Your task to perform on an android device: add a label to a message in the gmail app Image 0: 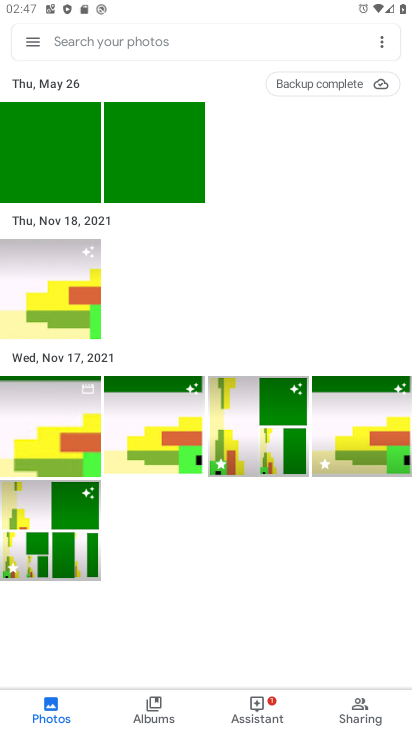
Step 0: press home button
Your task to perform on an android device: add a label to a message in the gmail app Image 1: 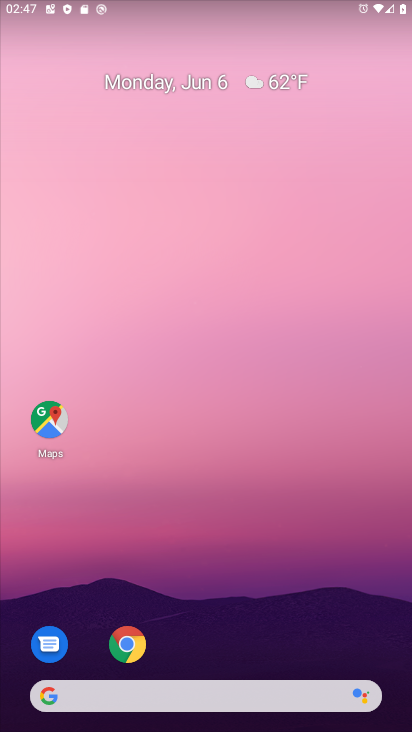
Step 1: drag from (132, 623) to (99, 85)
Your task to perform on an android device: add a label to a message in the gmail app Image 2: 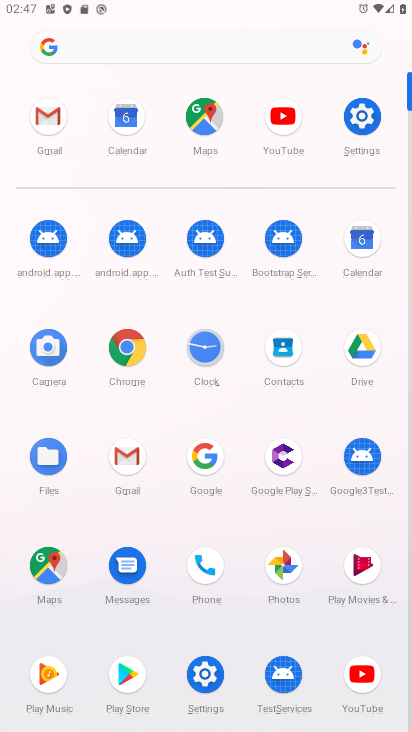
Step 2: click (131, 468)
Your task to perform on an android device: add a label to a message in the gmail app Image 3: 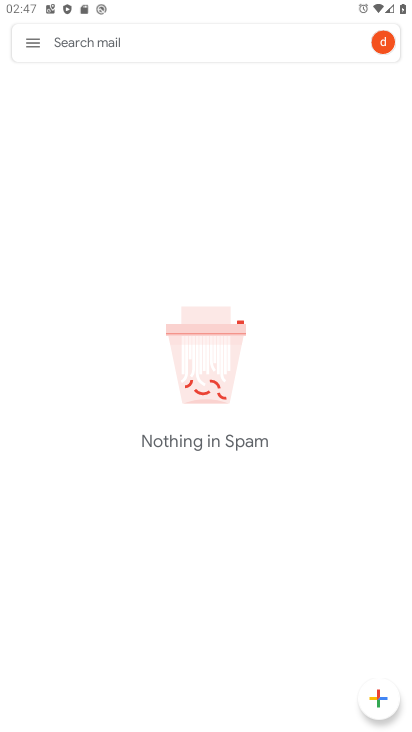
Step 3: click (30, 47)
Your task to perform on an android device: add a label to a message in the gmail app Image 4: 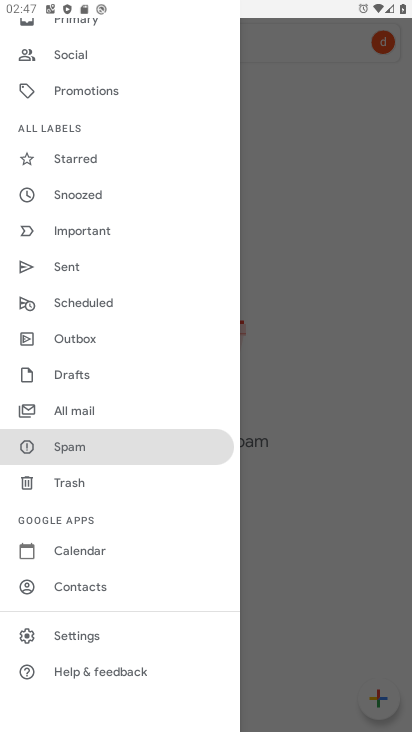
Step 4: click (76, 412)
Your task to perform on an android device: add a label to a message in the gmail app Image 5: 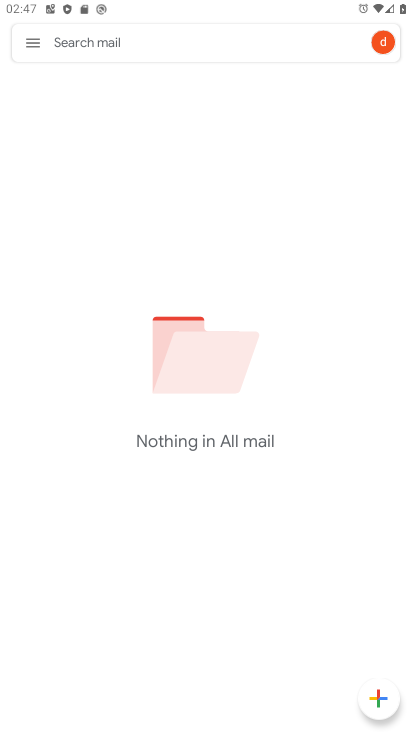
Step 5: click (28, 47)
Your task to perform on an android device: add a label to a message in the gmail app Image 6: 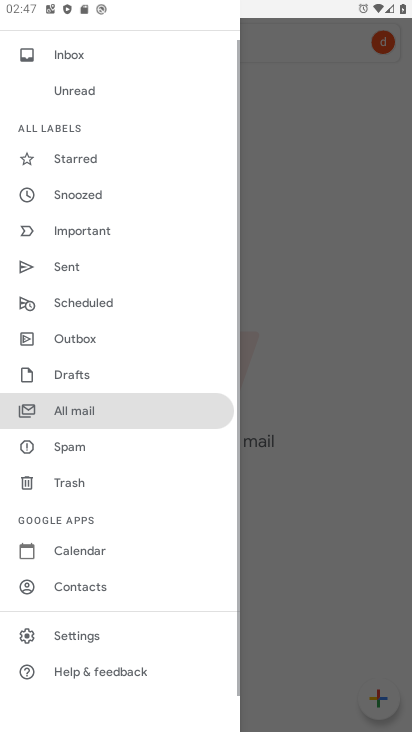
Step 6: drag from (102, 82) to (83, 463)
Your task to perform on an android device: add a label to a message in the gmail app Image 7: 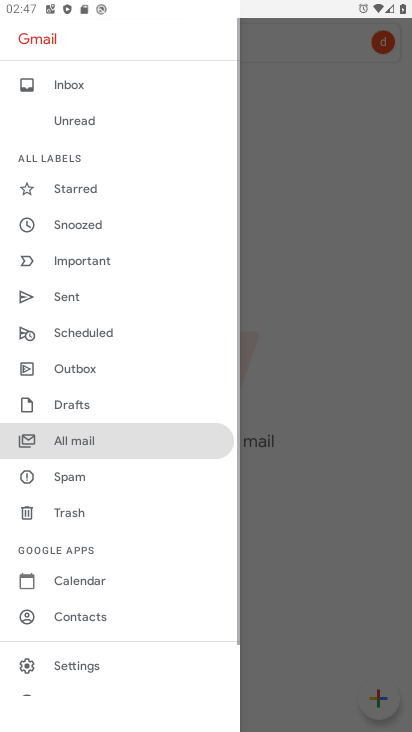
Step 7: click (59, 90)
Your task to perform on an android device: add a label to a message in the gmail app Image 8: 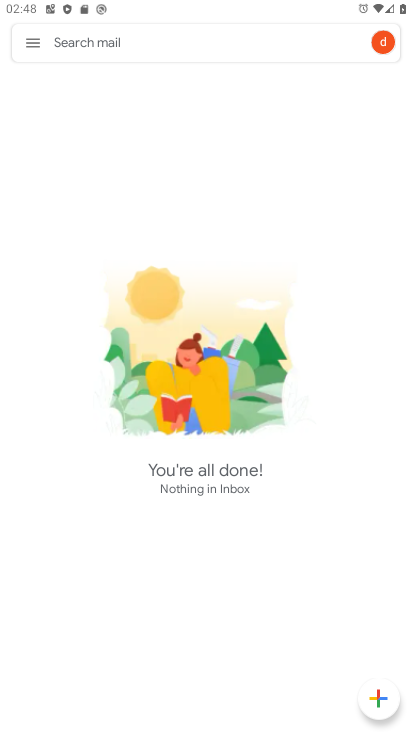
Step 8: task complete